Your task to perform on an android device: turn on airplane mode Image 0: 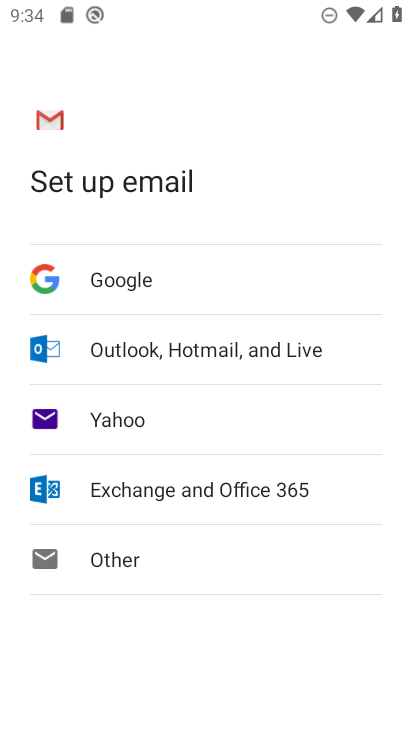
Step 0: press home button
Your task to perform on an android device: turn on airplane mode Image 1: 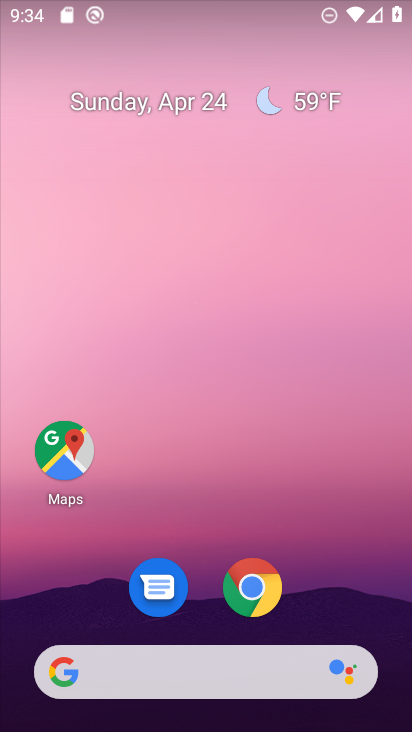
Step 1: drag from (213, 511) to (261, 53)
Your task to perform on an android device: turn on airplane mode Image 2: 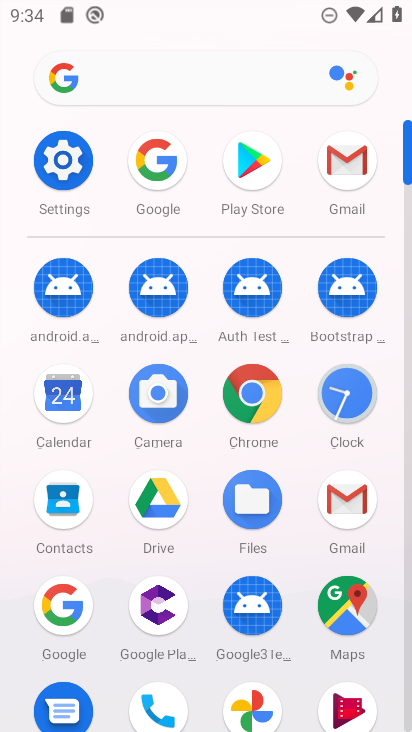
Step 2: click (63, 161)
Your task to perform on an android device: turn on airplane mode Image 3: 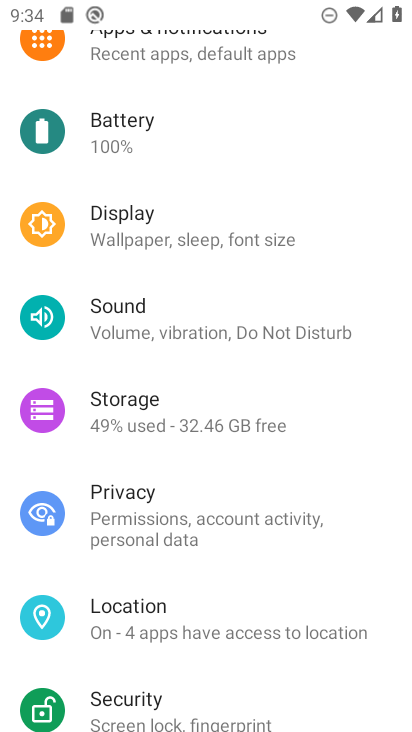
Step 3: drag from (218, 367) to (227, 454)
Your task to perform on an android device: turn on airplane mode Image 4: 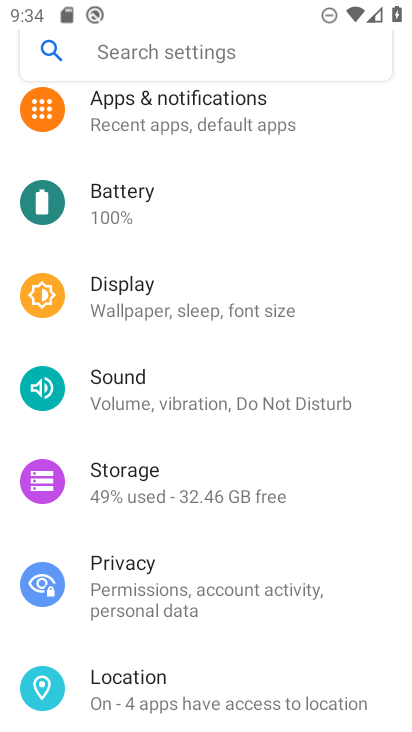
Step 4: drag from (235, 345) to (238, 438)
Your task to perform on an android device: turn on airplane mode Image 5: 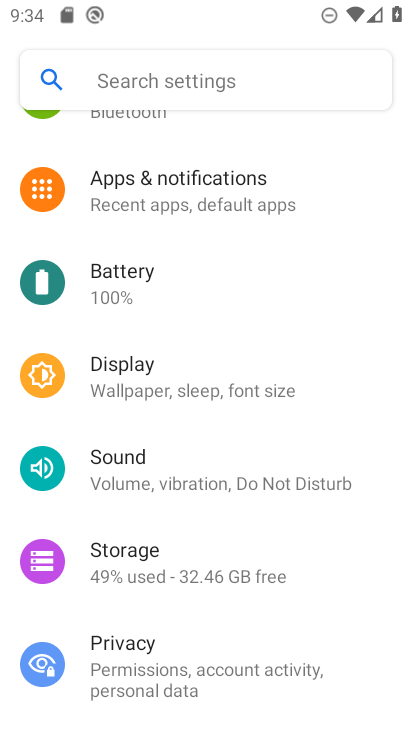
Step 5: drag from (209, 321) to (212, 408)
Your task to perform on an android device: turn on airplane mode Image 6: 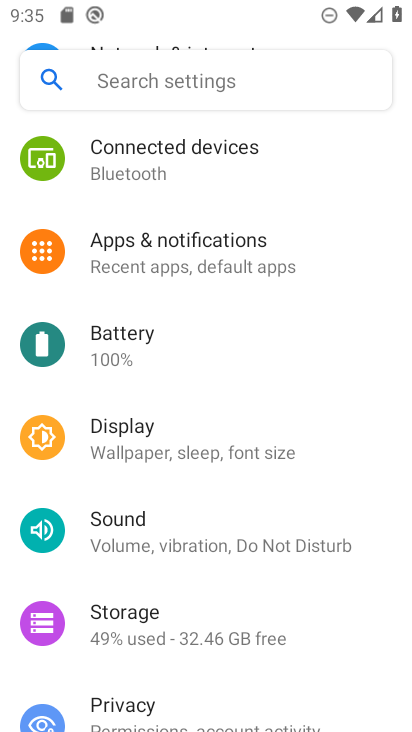
Step 6: drag from (227, 208) to (235, 297)
Your task to perform on an android device: turn on airplane mode Image 7: 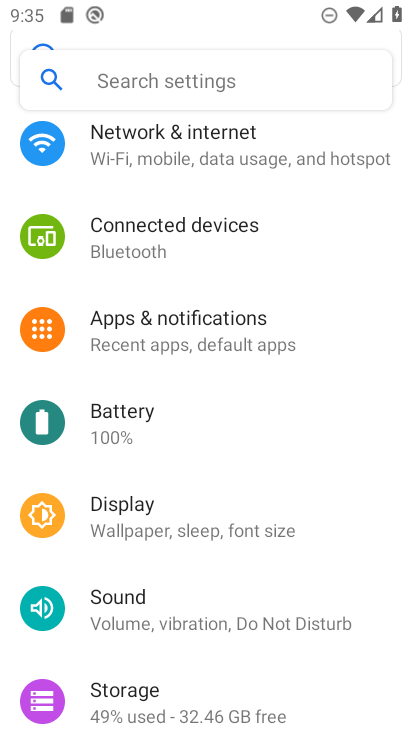
Step 7: drag from (204, 186) to (223, 308)
Your task to perform on an android device: turn on airplane mode Image 8: 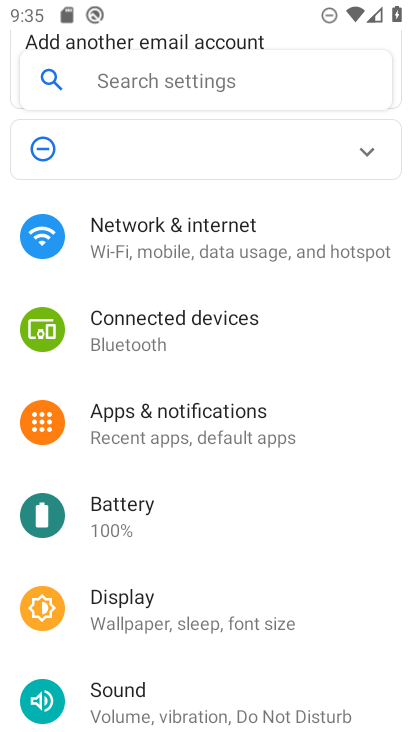
Step 8: click (177, 224)
Your task to perform on an android device: turn on airplane mode Image 9: 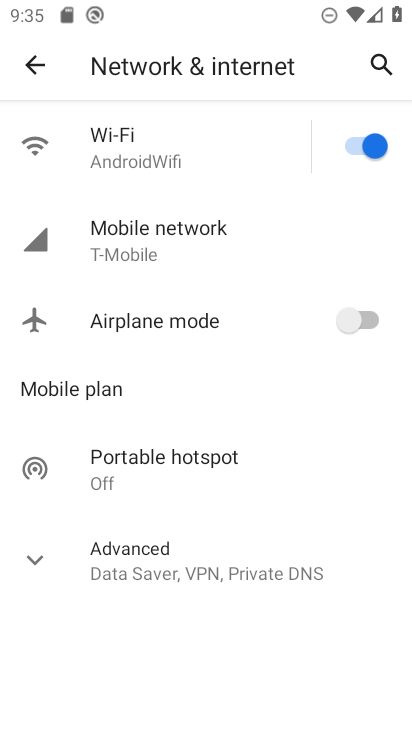
Step 9: click (354, 313)
Your task to perform on an android device: turn on airplane mode Image 10: 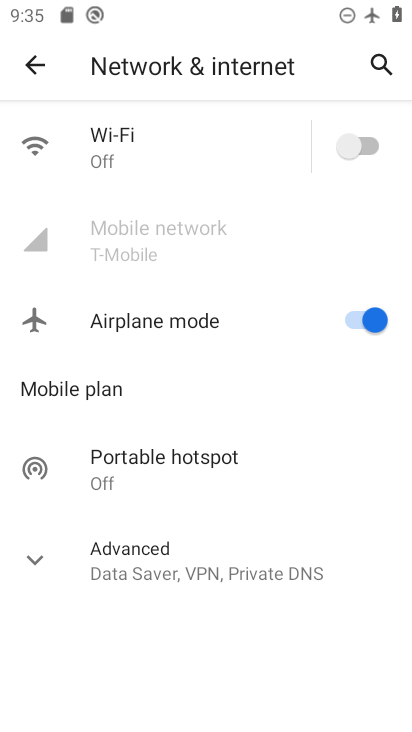
Step 10: task complete